Your task to perform on an android device: Show me recent news Image 0: 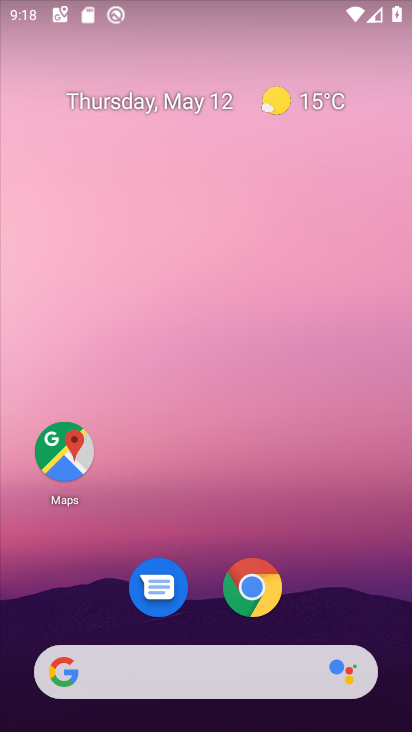
Step 0: drag from (386, 611) to (344, 114)
Your task to perform on an android device: Show me recent news Image 1: 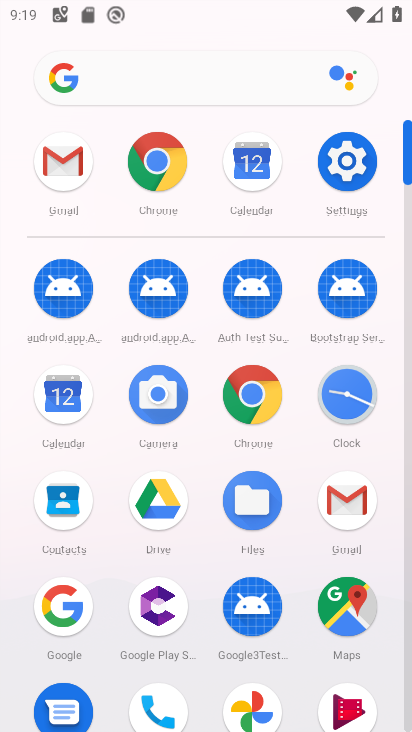
Step 1: click (249, 413)
Your task to perform on an android device: Show me recent news Image 2: 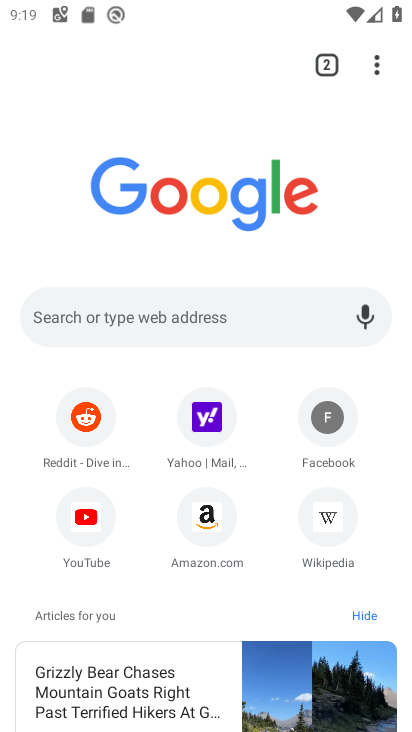
Step 2: click (110, 697)
Your task to perform on an android device: Show me recent news Image 3: 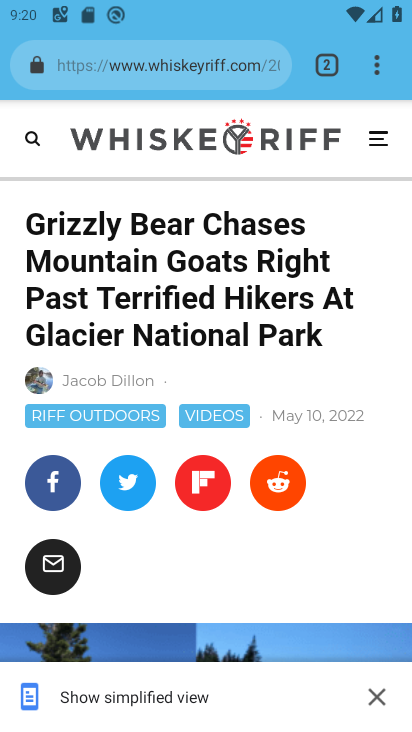
Step 3: task complete